Your task to perform on an android device: Go to notification settings Image 0: 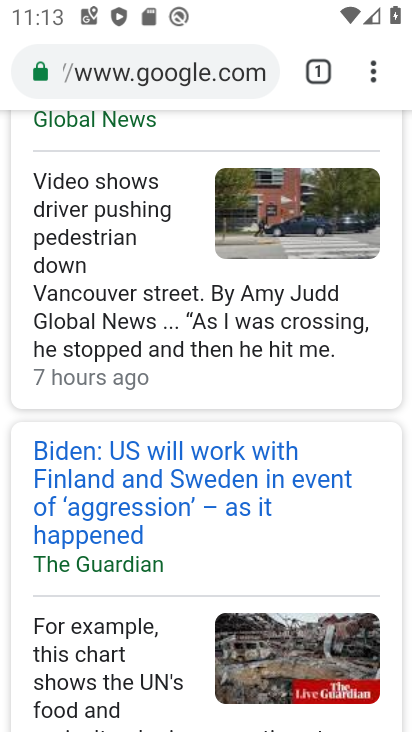
Step 0: press home button
Your task to perform on an android device: Go to notification settings Image 1: 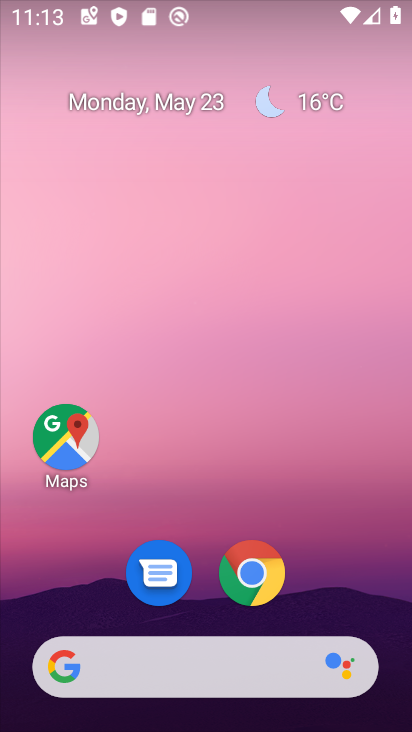
Step 1: drag from (327, 560) to (270, 30)
Your task to perform on an android device: Go to notification settings Image 2: 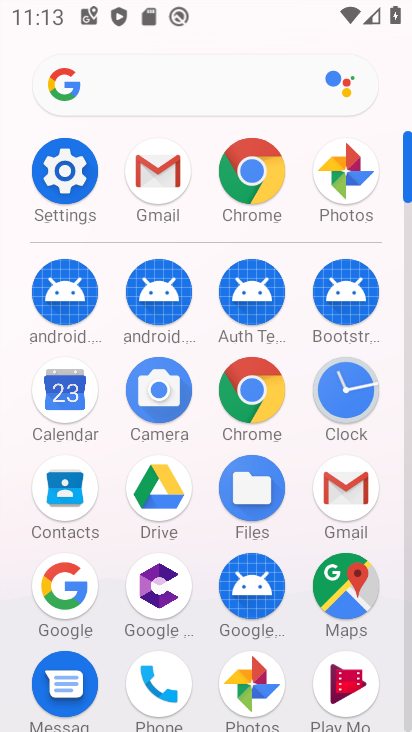
Step 2: click (64, 167)
Your task to perform on an android device: Go to notification settings Image 3: 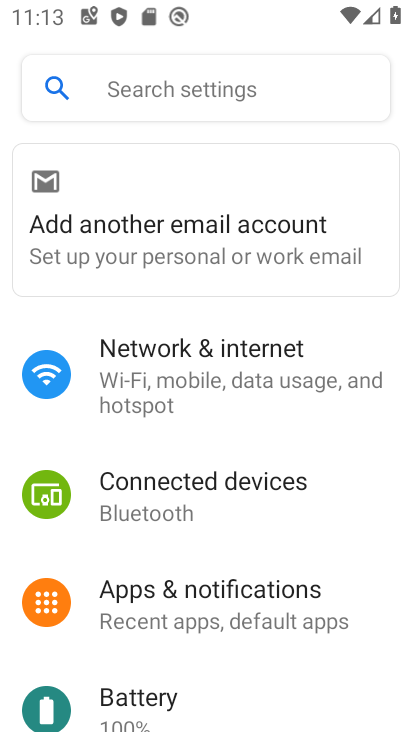
Step 3: drag from (247, 562) to (256, 211)
Your task to perform on an android device: Go to notification settings Image 4: 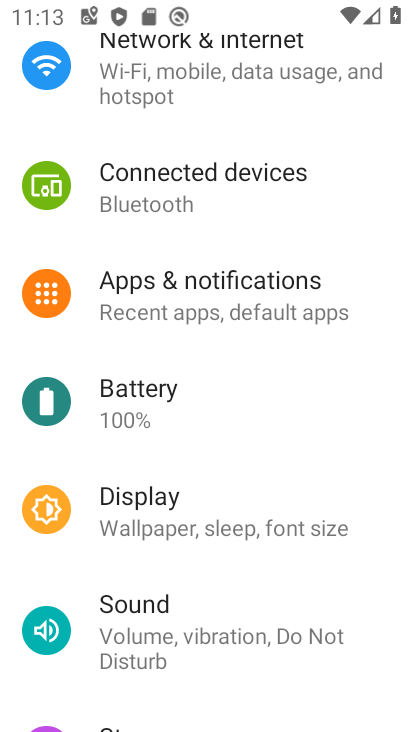
Step 4: click (233, 267)
Your task to perform on an android device: Go to notification settings Image 5: 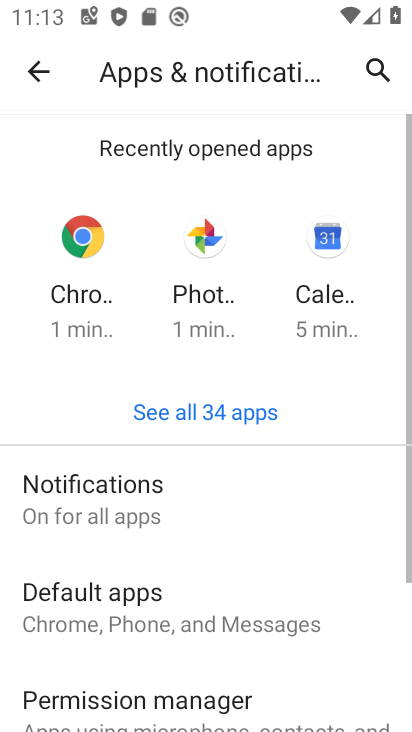
Step 5: drag from (239, 558) to (250, 202)
Your task to perform on an android device: Go to notification settings Image 6: 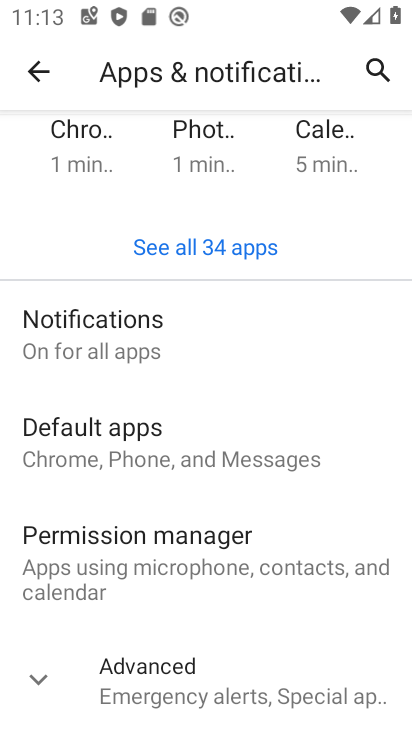
Step 6: drag from (225, 562) to (266, 217)
Your task to perform on an android device: Go to notification settings Image 7: 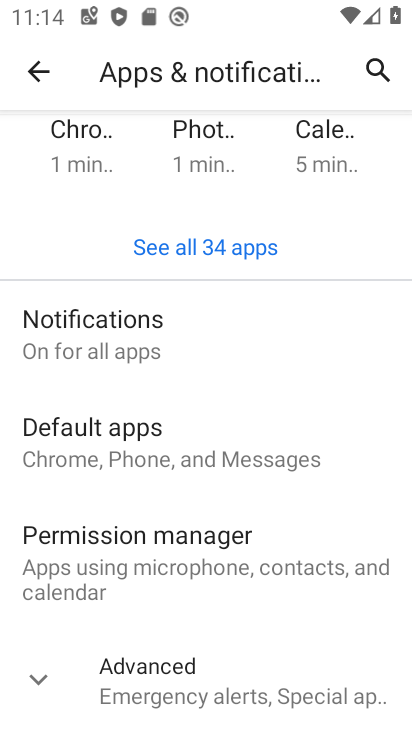
Step 7: click (175, 339)
Your task to perform on an android device: Go to notification settings Image 8: 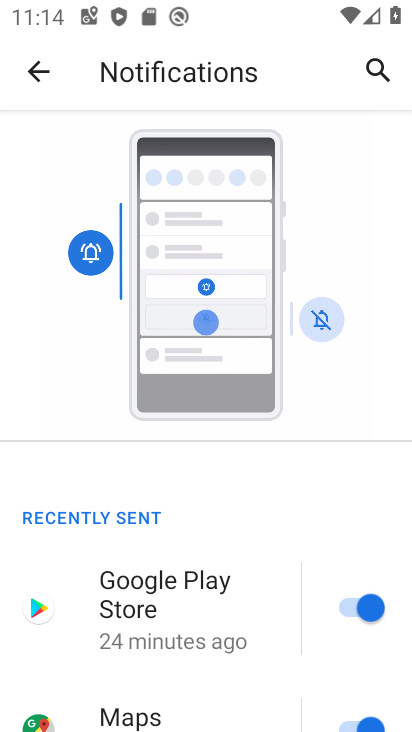
Step 8: drag from (227, 622) to (224, 168)
Your task to perform on an android device: Go to notification settings Image 9: 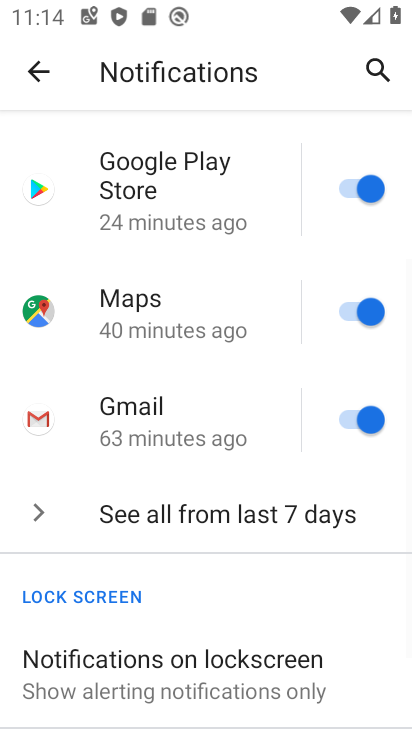
Step 9: drag from (202, 573) to (204, 152)
Your task to perform on an android device: Go to notification settings Image 10: 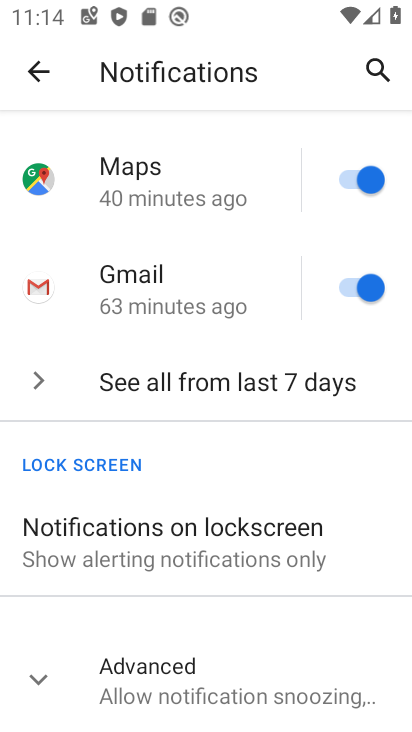
Step 10: drag from (217, 565) to (235, 166)
Your task to perform on an android device: Go to notification settings Image 11: 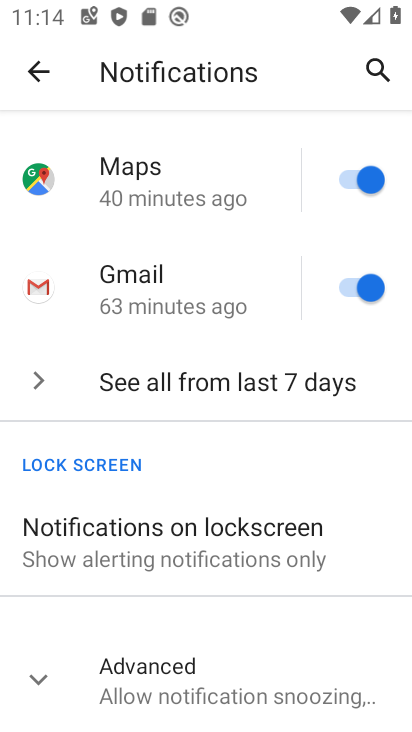
Step 11: drag from (214, 561) to (204, 107)
Your task to perform on an android device: Go to notification settings Image 12: 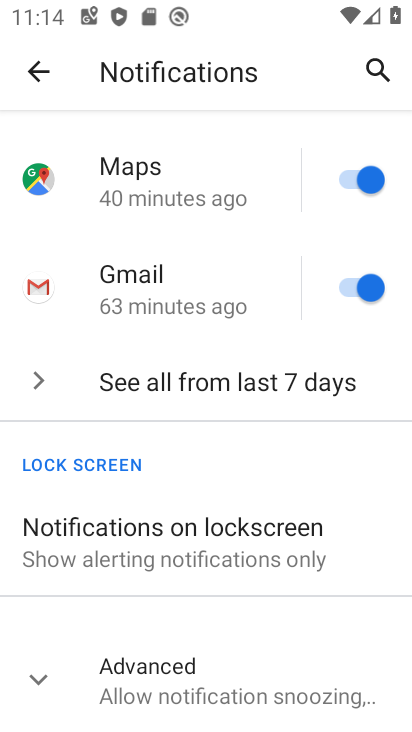
Step 12: drag from (193, 552) to (186, 188)
Your task to perform on an android device: Go to notification settings Image 13: 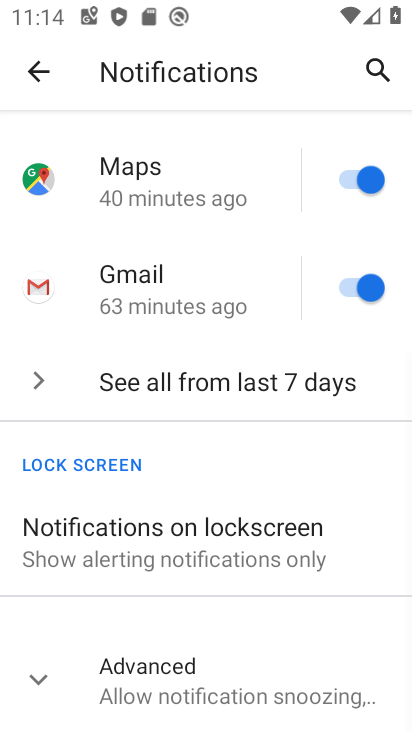
Step 13: click (36, 668)
Your task to perform on an android device: Go to notification settings Image 14: 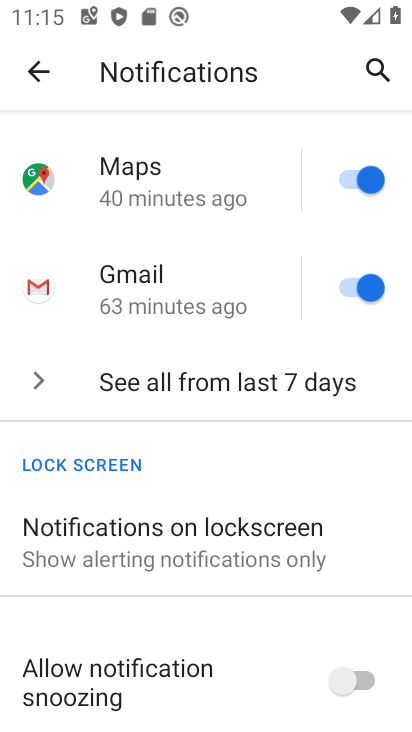
Step 14: task complete